Your task to perform on an android device: check android version Image 0: 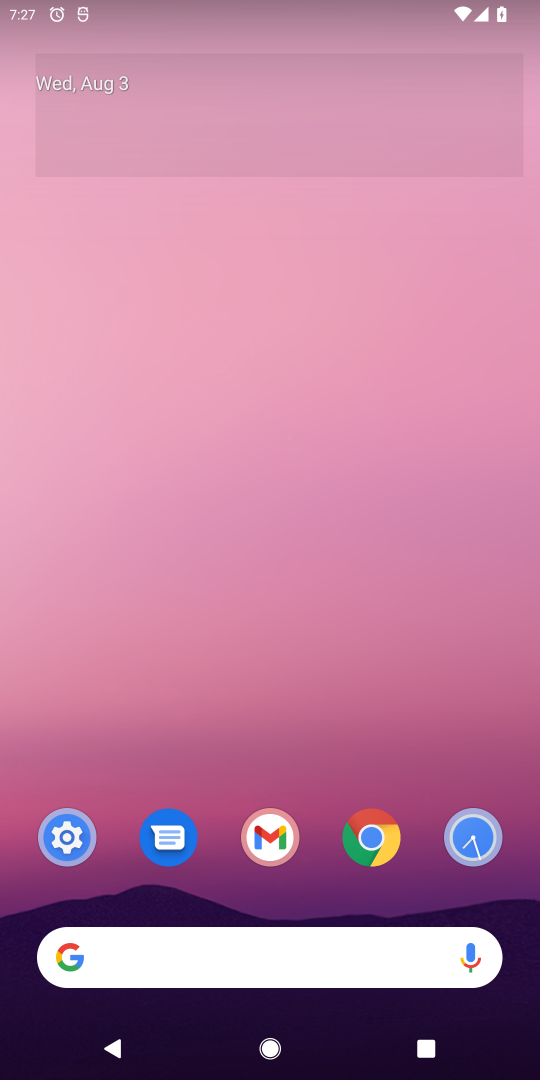
Step 0: press home button
Your task to perform on an android device: check android version Image 1: 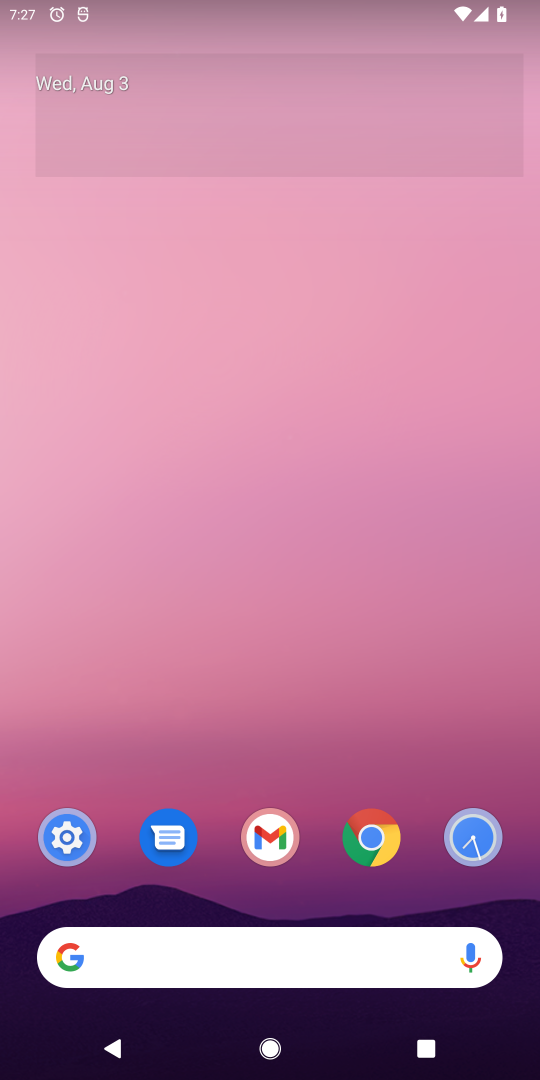
Step 1: drag from (323, 790) to (359, 5)
Your task to perform on an android device: check android version Image 2: 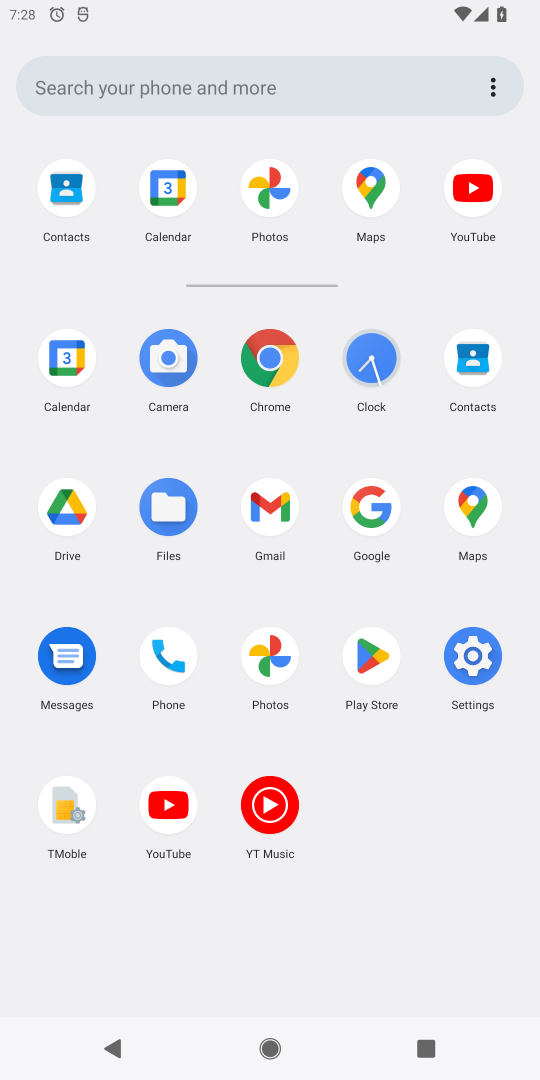
Step 2: click (469, 659)
Your task to perform on an android device: check android version Image 3: 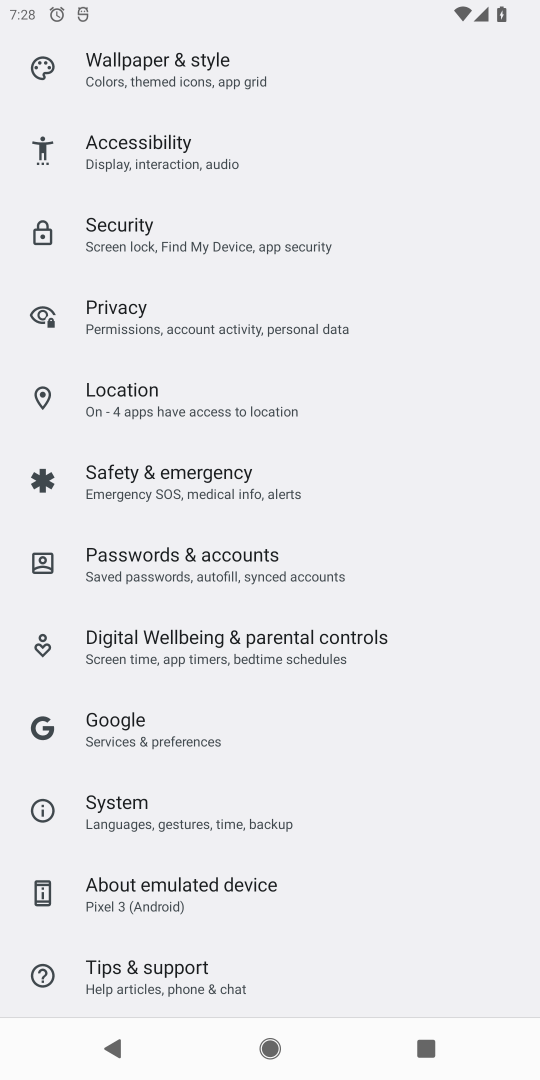
Step 3: click (140, 887)
Your task to perform on an android device: check android version Image 4: 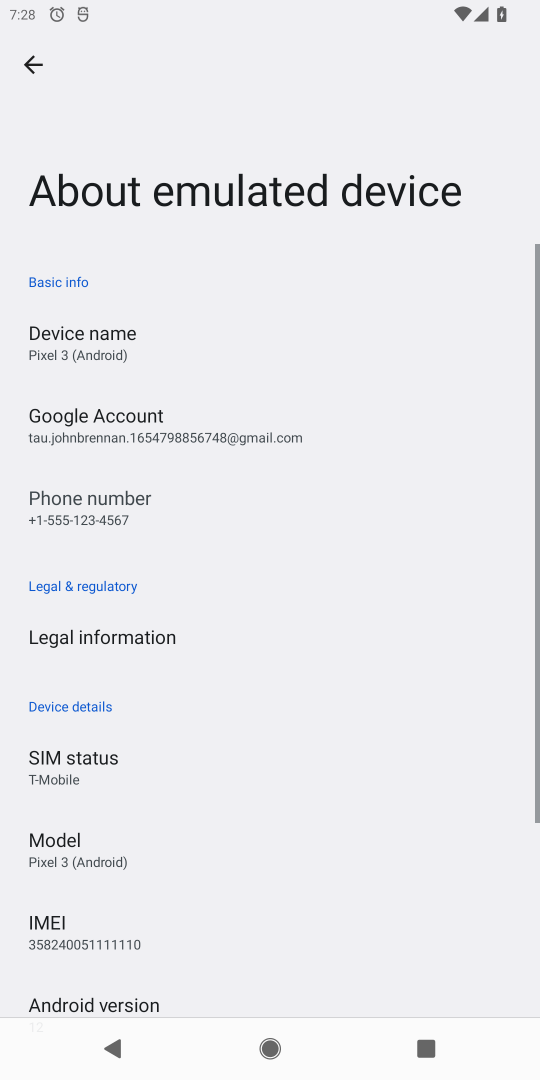
Step 4: task complete